Your task to perform on an android device: Go to Yahoo.com Image 0: 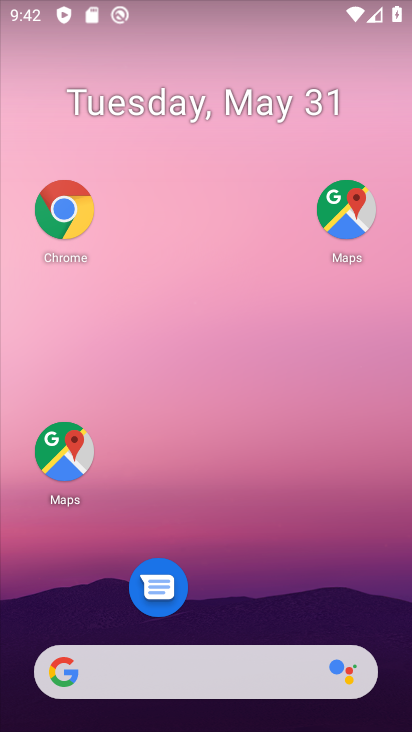
Step 0: drag from (215, 508) to (158, 89)
Your task to perform on an android device: Go to Yahoo.com Image 1: 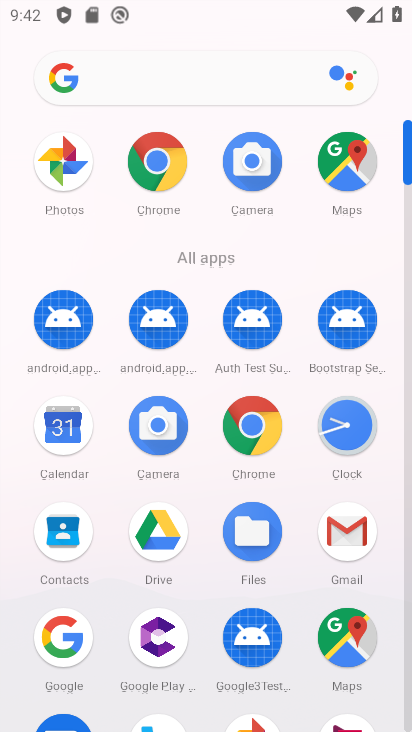
Step 1: click (161, 168)
Your task to perform on an android device: Go to Yahoo.com Image 2: 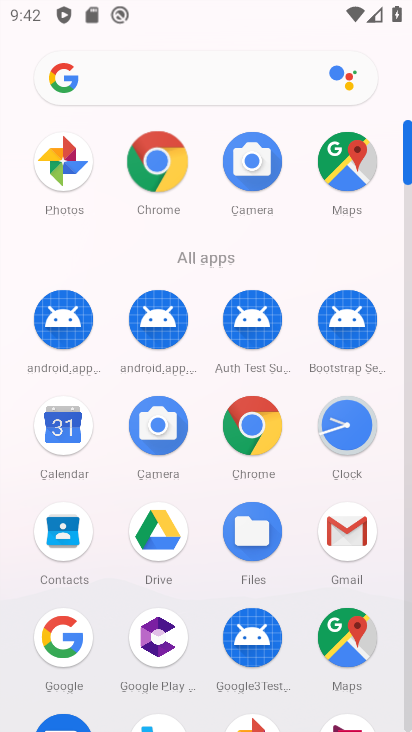
Step 2: click (162, 168)
Your task to perform on an android device: Go to Yahoo.com Image 3: 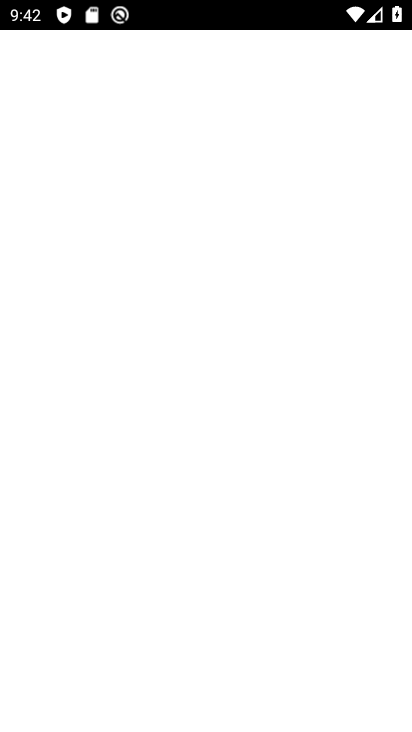
Step 3: click (163, 168)
Your task to perform on an android device: Go to Yahoo.com Image 4: 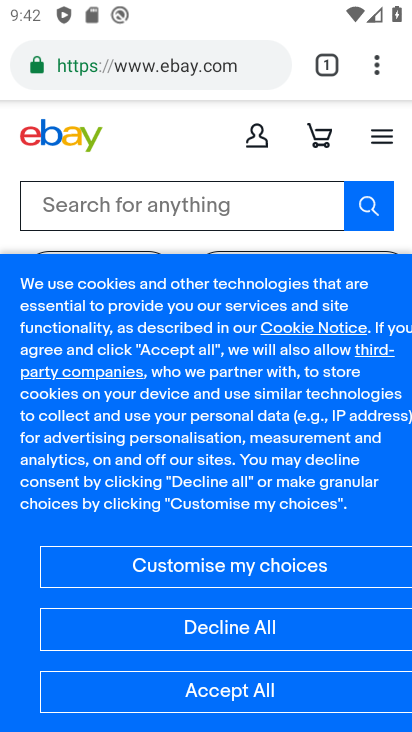
Step 4: drag from (376, 73) to (137, 630)
Your task to perform on an android device: Go to Yahoo.com Image 5: 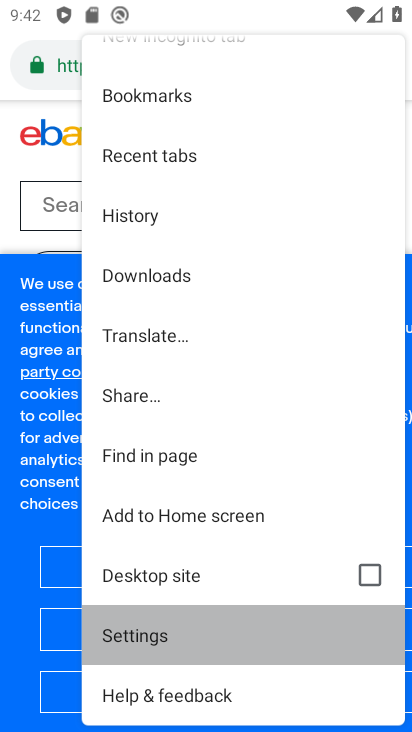
Step 5: click (136, 631)
Your task to perform on an android device: Go to Yahoo.com Image 6: 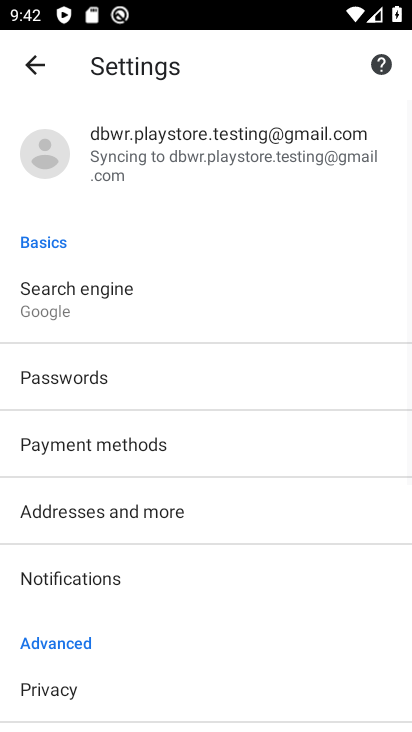
Step 6: drag from (191, 488) to (186, 91)
Your task to perform on an android device: Go to Yahoo.com Image 7: 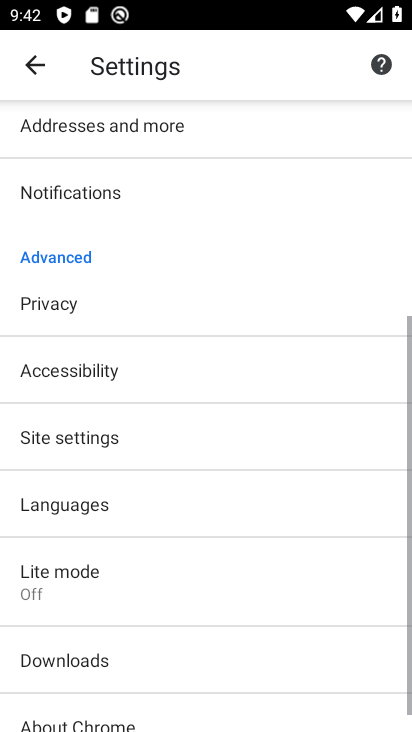
Step 7: drag from (197, 345) to (191, 159)
Your task to perform on an android device: Go to Yahoo.com Image 8: 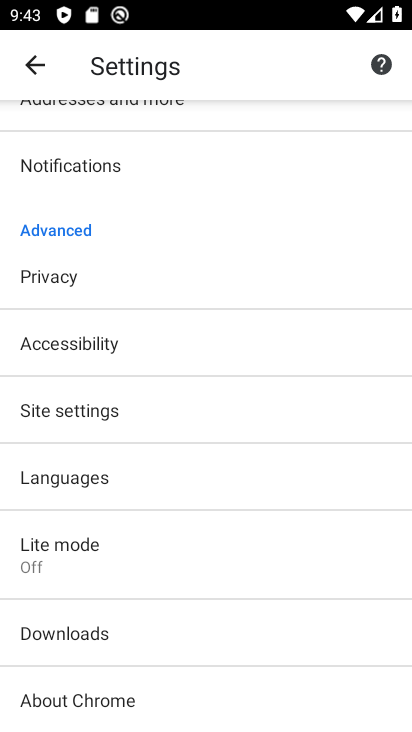
Step 8: click (30, 64)
Your task to perform on an android device: Go to Yahoo.com Image 9: 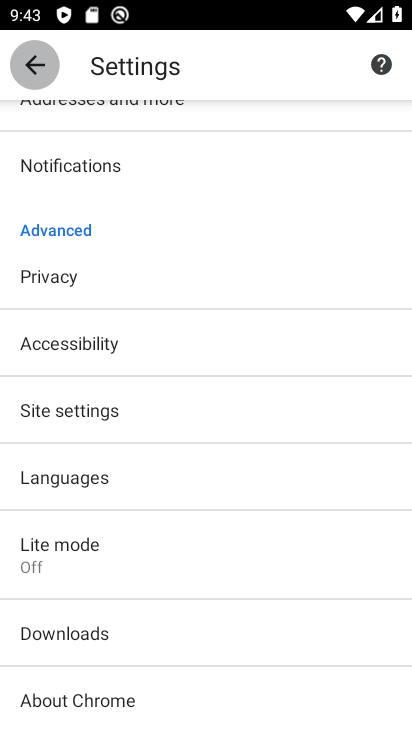
Step 9: click (30, 64)
Your task to perform on an android device: Go to Yahoo.com Image 10: 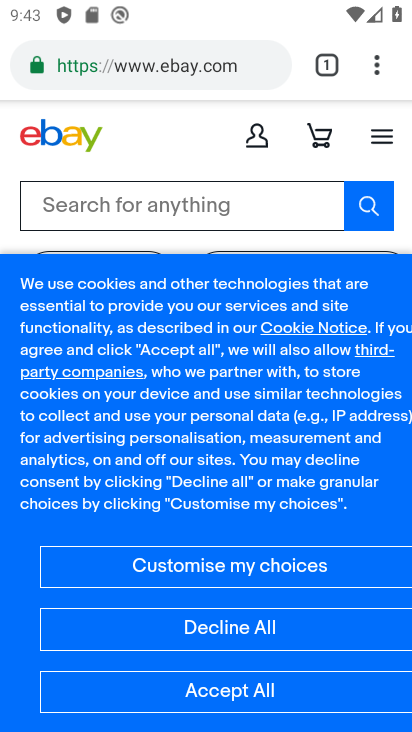
Step 10: drag from (375, 67) to (133, 121)
Your task to perform on an android device: Go to Yahoo.com Image 11: 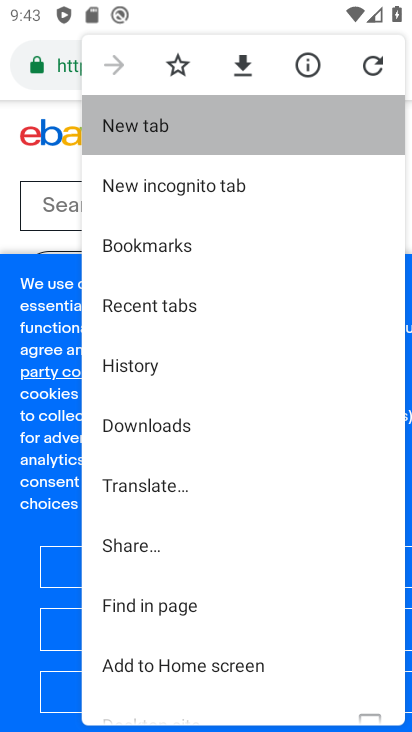
Step 11: click (136, 121)
Your task to perform on an android device: Go to Yahoo.com Image 12: 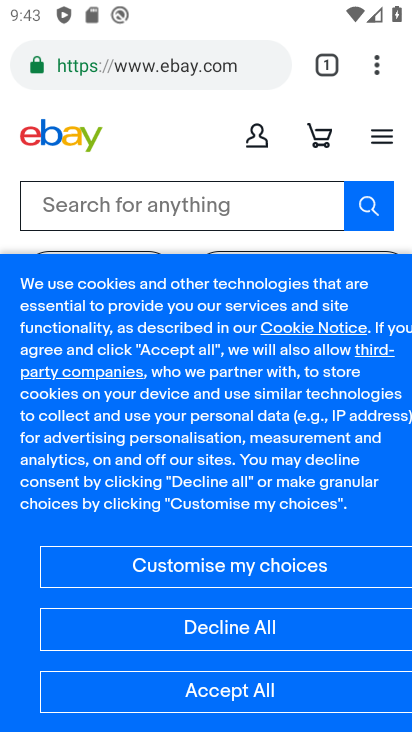
Step 12: click (137, 120)
Your task to perform on an android device: Go to Yahoo.com Image 13: 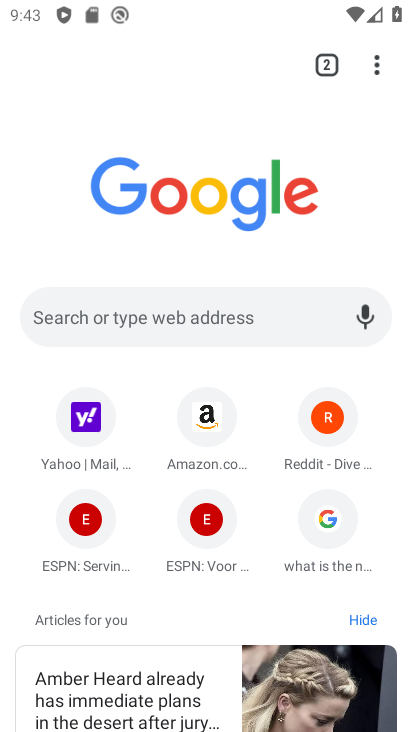
Step 13: click (91, 414)
Your task to perform on an android device: Go to Yahoo.com Image 14: 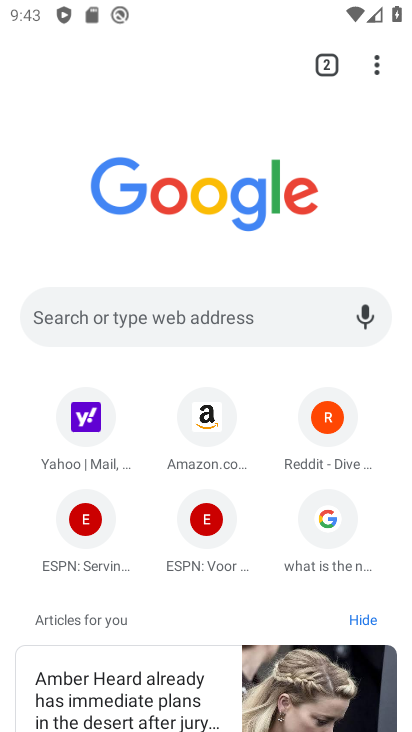
Step 14: click (90, 415)
Your task to perform on an android device: Go to Yahoo.com Image 15: 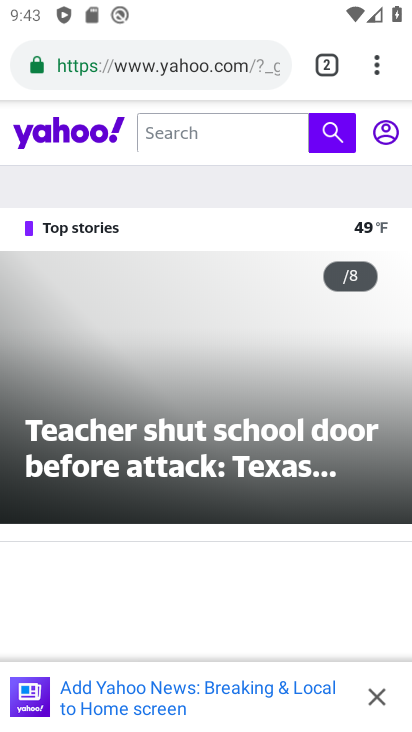
Step 15: task complete